Your task to perform on an android device: What is the news today? Image 0: 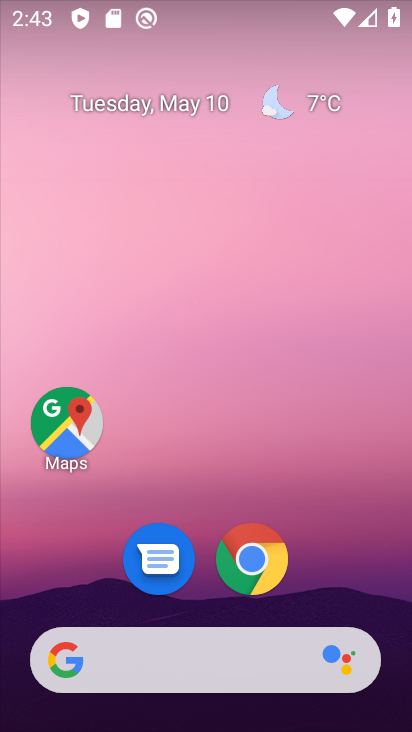
Step 0: drag from (291, 401) to (405, 366)
Your task to perform on an android device: What is the news today? Image 1: 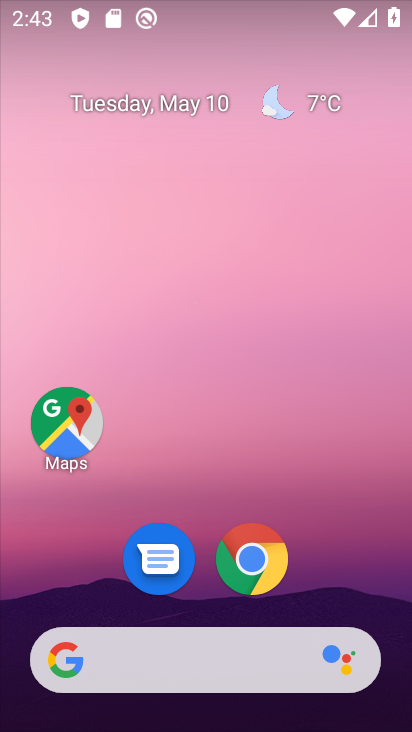
Step 1: drag from (9, 250) to (295, 292)
Your task to perform on an android device: What is the news today? Image 2: 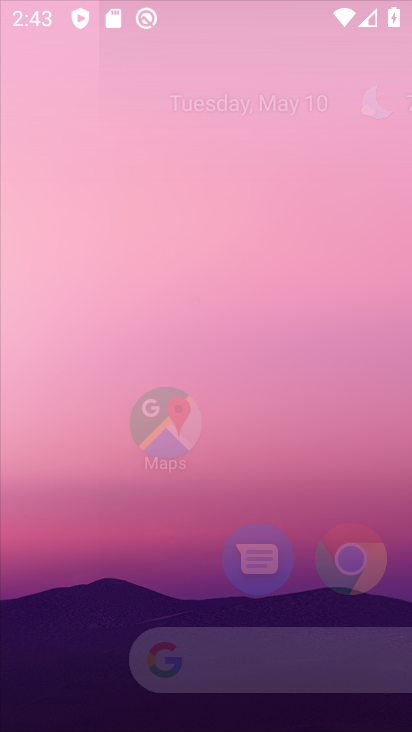
Step 2: drag from (30, 240) to (364, 352)
Your task to perform on an android device: What is the news today? Image 3: 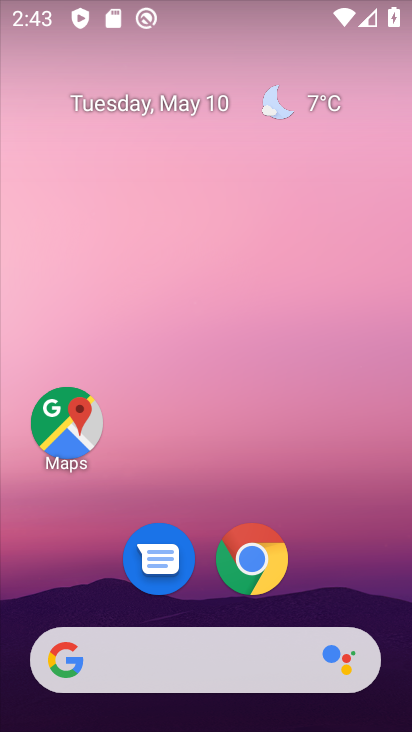
Step 3: drag from (385, 394) to (356, 362)
Your task to perform on an android device: What is the news today? Image 4: 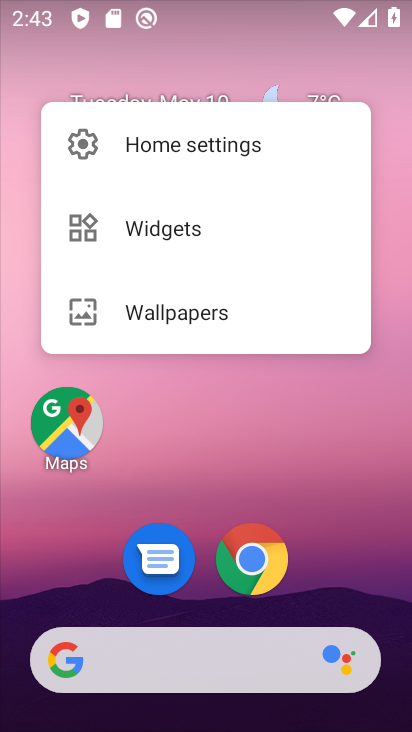
Step 4: drag from (28, 267) to (383, 464)
Your task to perform on an android device: What is the news today? Image 5: 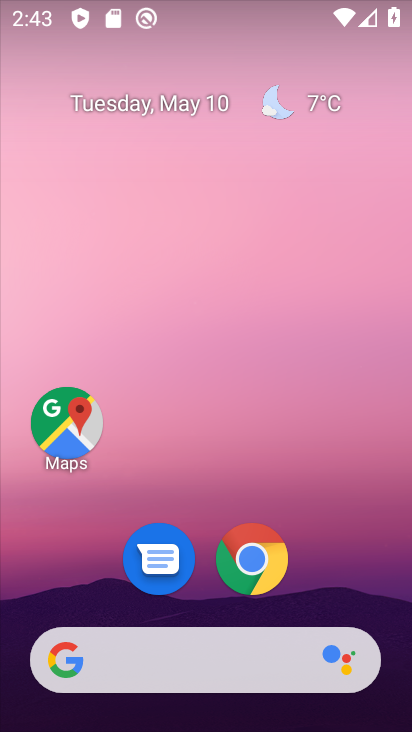
Step 5: click (213, 390)
Your task to perform on an android device: What is the news today? Image 6: 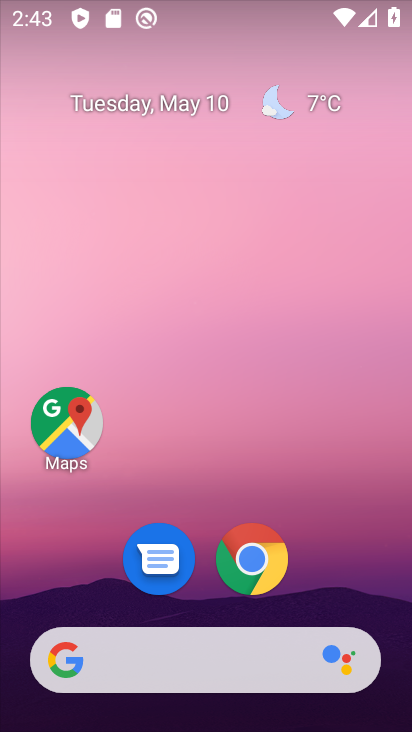
Step 6: task complete